Your task to perform on an android device: Toggle the flashlight Image 0: 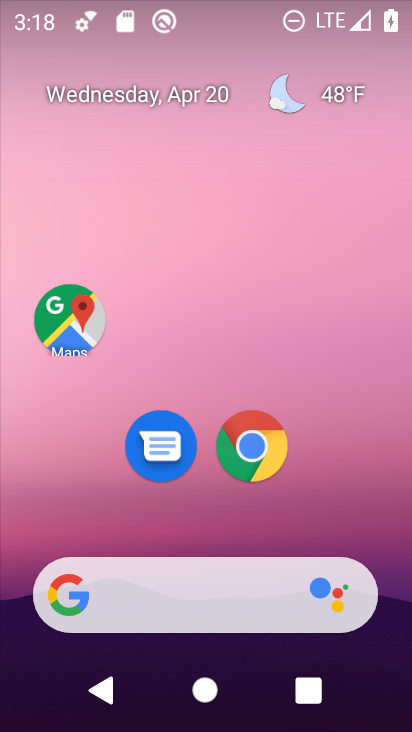
Step 0: drag from (303, 494) to (293, 11)
Your task to perform on an android device: Toggle the flashlight Image 1: 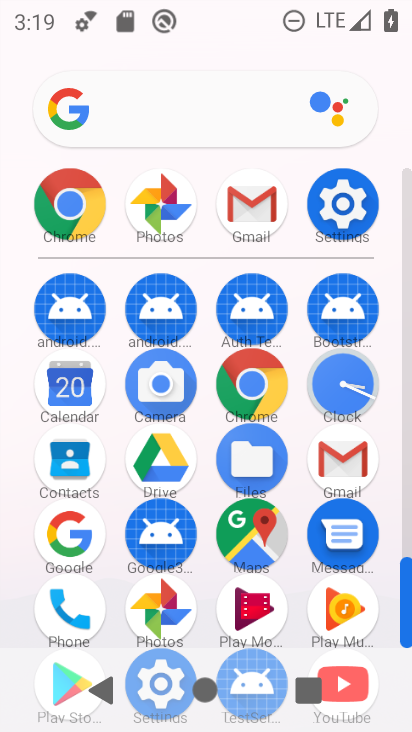
Step 1: click (346, 204)
Your task to perform on an android device: Toggle the flashlight Image 2: 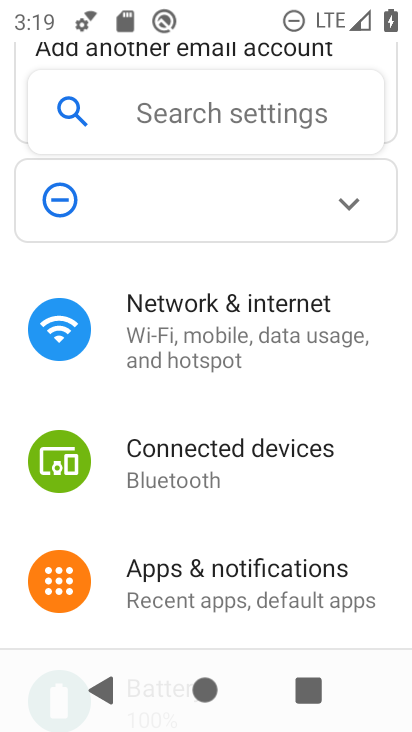
Step 2: drag from (224, 538) to (260, 394)
Your task to perform on an android device: Toggle the flashlight Image 3: 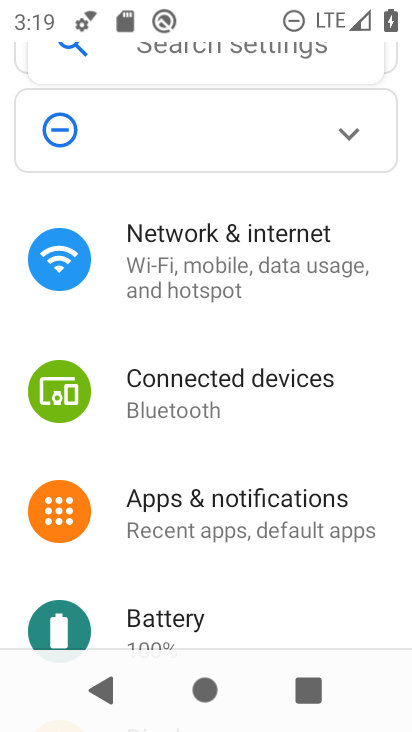
Step 3: drag from (278, 599) to (357, 409)
Your task to perform on an android device: Toggle the flashlight Image 4: 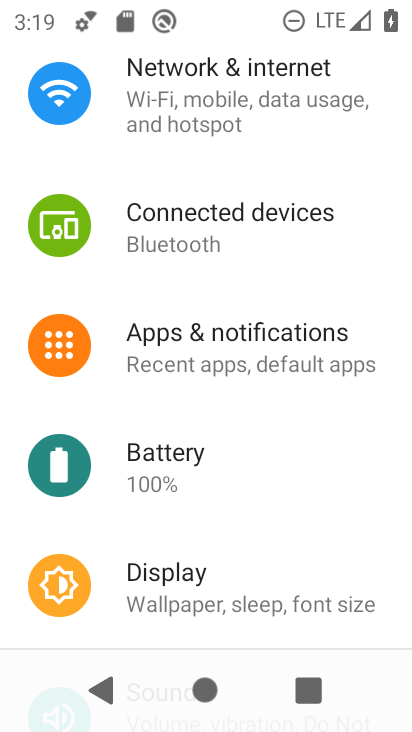
Step 4: drag from (268, 526) to (319, 344)
Your task to perform on an android device: Toggle the flashlight Image 5: 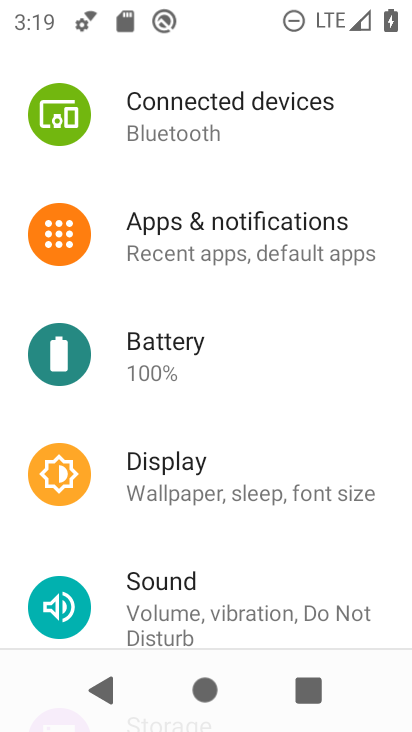
Step 5: drag from (250, 436) to (298, 315)
Your task to perform on an android device: Toggle the flashlight Image 6: 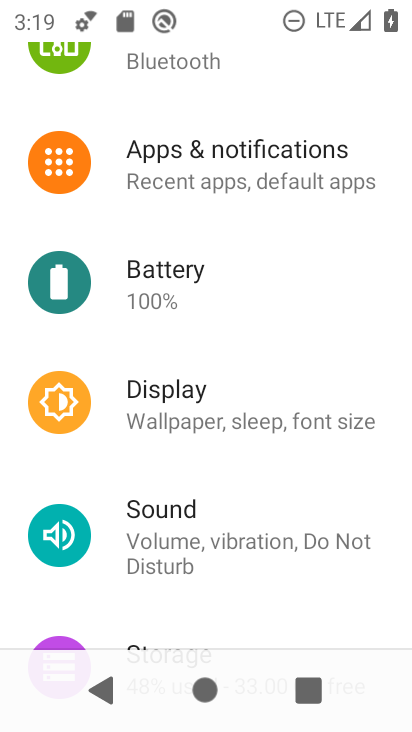
Step 6: drag from (249, 474) to (312, 345)
Your task to perform on an android device: Toggle the flashlight Image 7: 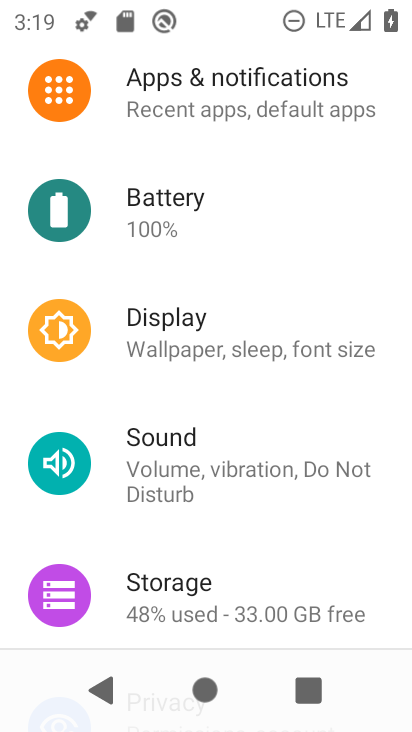
Step 7: drag from (235, 546) to (302, 386)
Your task to perform on an android device: Toggle the flashlight Image 8: 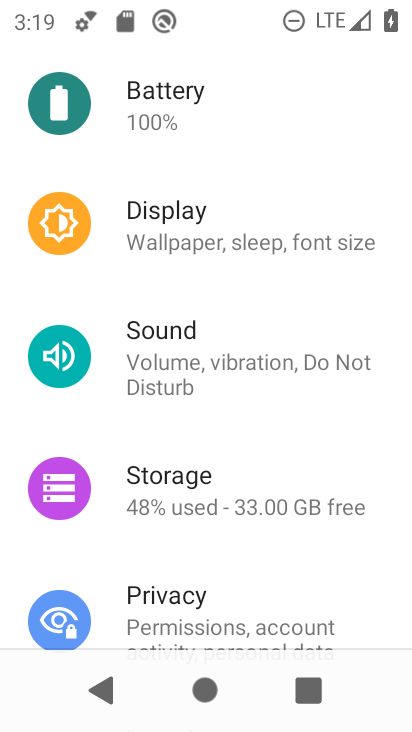
Step 8: drag from (208, 549) to (277, 399)
Your task to perform on an android device: Toggle the flashlight Image 9: 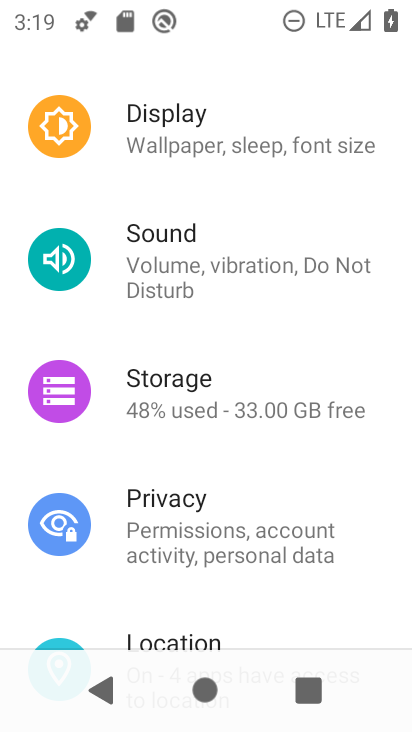
Step 9: drag from (223, 464) to (308, 334)
Your task to perform on an android device: Toggle the flashlight Image 10: 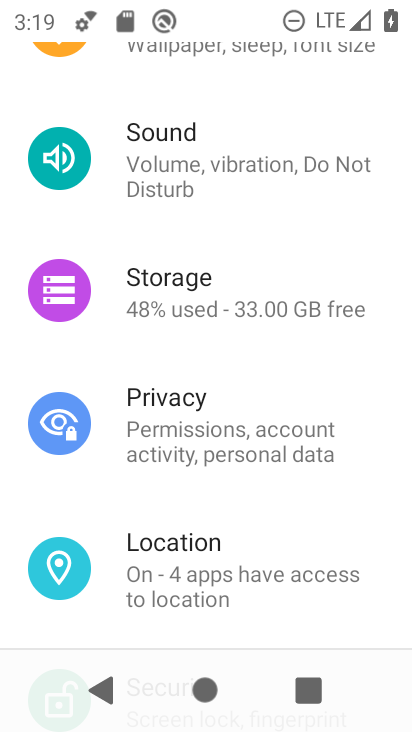
Step 10: drag from (231, 504) to (311, 378)
Your task to perform on an android device: Toggle the flashlight Image 11: 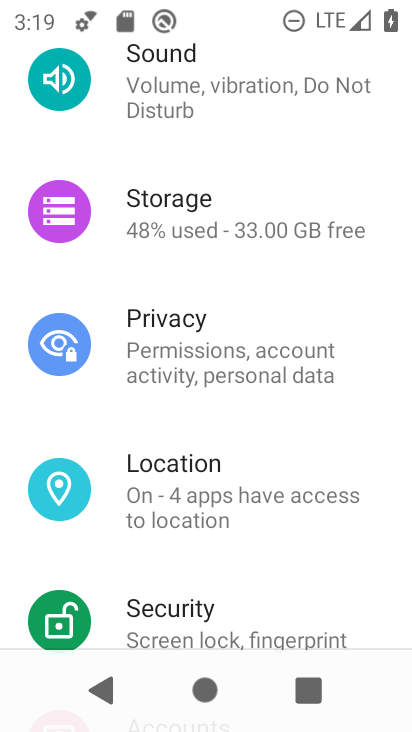
Step 11: drag from (214, 554) to (308, 410)
Your task to perform on an android device: Toggle the flashlight Image 12: 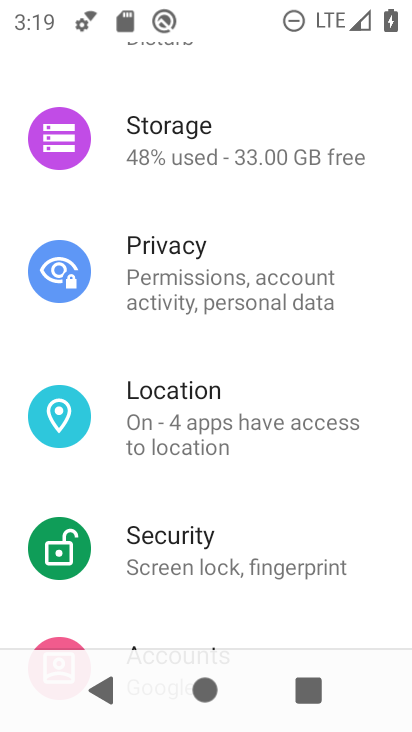
Step 12: drag from (230, 499) to (320, 367)
Your task to perform on an android device: Toggle the flashlight Image 13: 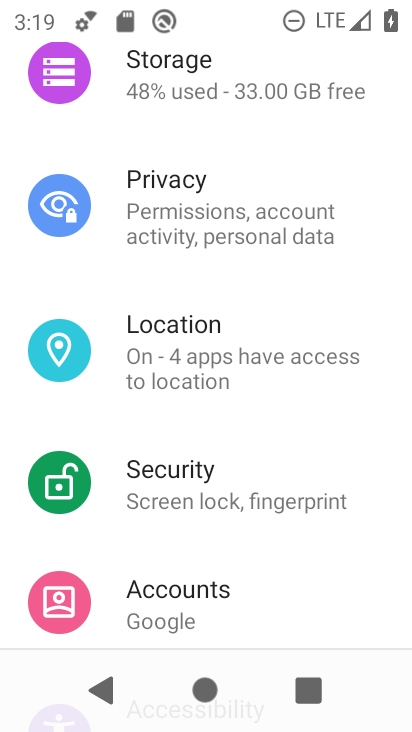
Step 13: drag from (189, 528) to (283, 406)
Your task to perform on an android device: Toggle the flashlight Image 14: 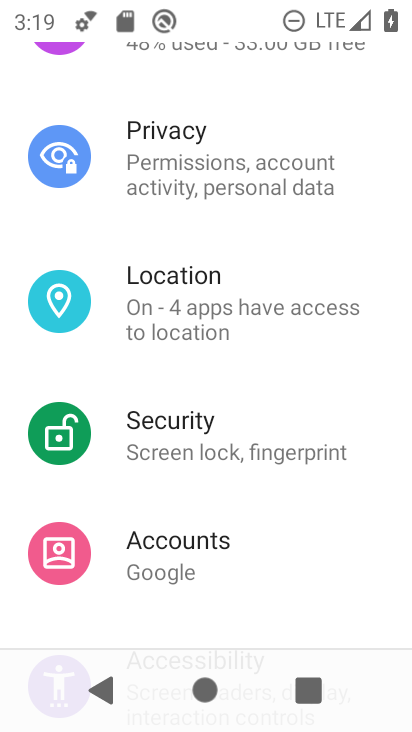
Step 14: drag from (177, 618) to (278, 412)
Your task to perform on an android device: Toggle the flashlight Image 15: 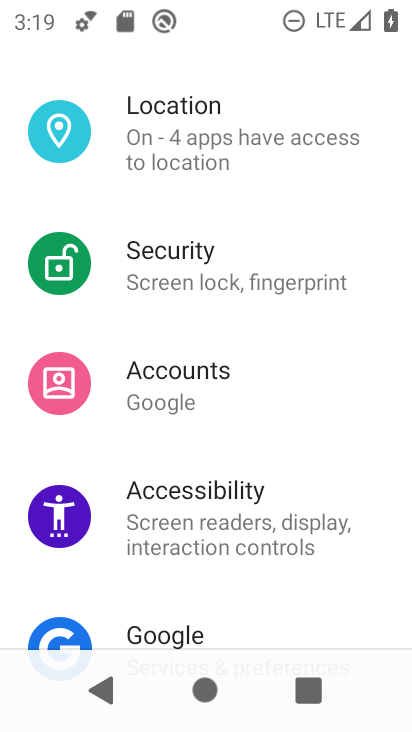
Step 15: click (225, 501)
Your task to perform on an android device: Toggle the flashlight Image 16: 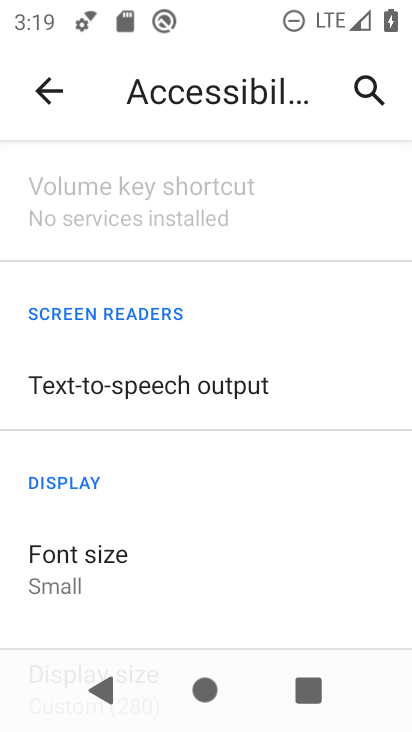
Step 16: drag from (146, 554) to (254, 430)
Your task to perform on an android device: Toggle the flashlight Image 17: 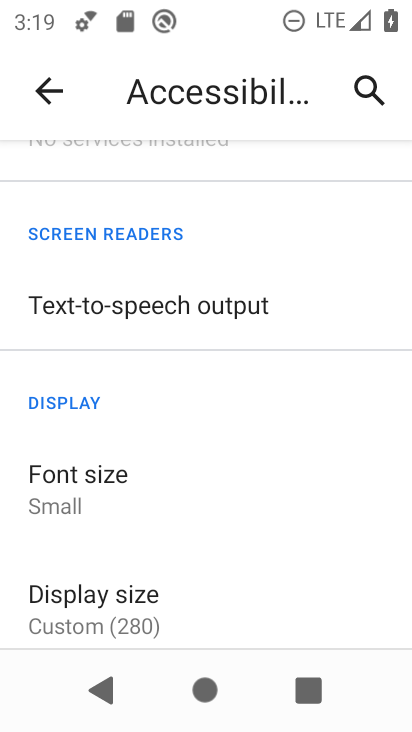
Step 17: click (265, 424)
Your task to perform on an android device: Toggle the flashlight Image 18: 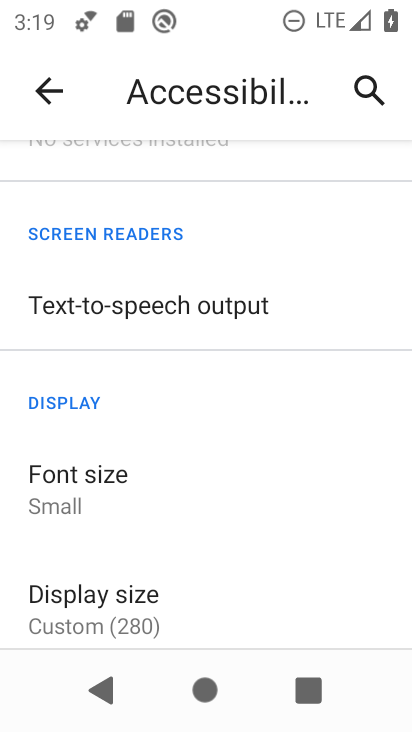
Step 18: drag from (197, 590) to (269, 409)
Your task to perform on an android device: Toggle the flashlight Image 19: 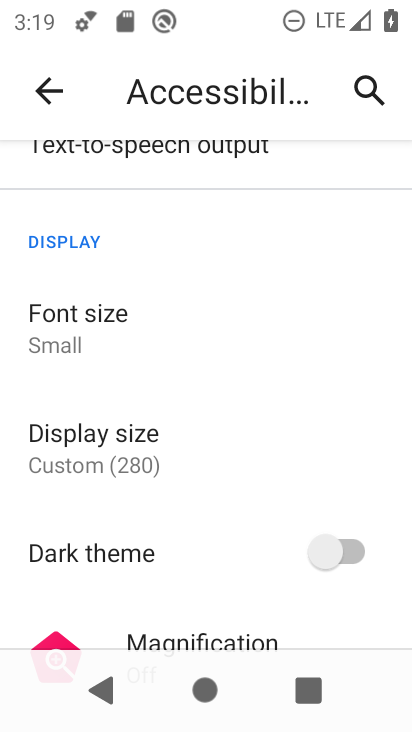
Step 19: drag from (210, 597) to (273, 447)
Your task to perform on an android device: Toggle the flashlight Image 20: 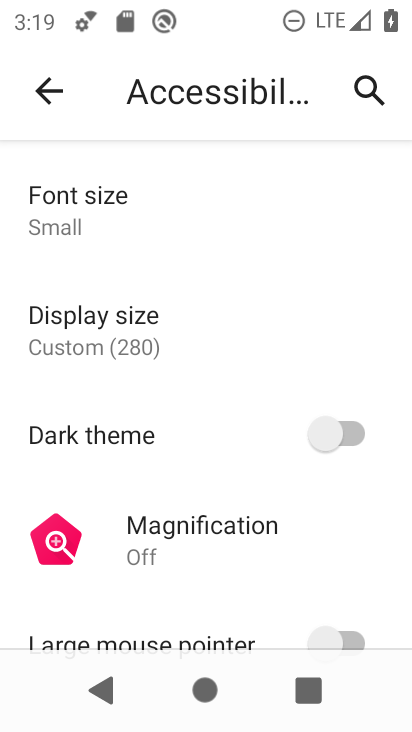
Step 20: drag from (227, 553) to (273, 412)
Your task to perform on an android device: Toggle the flashlight Image 21: 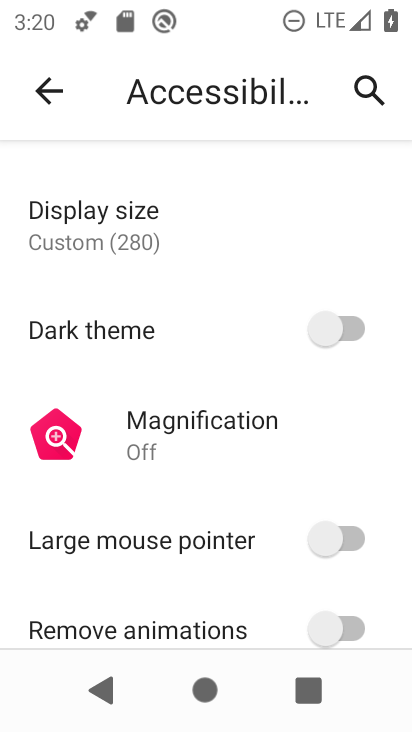
Step 21: drag from (226, 509) to (277, 416)
Your task to perform on an android device: Toggle the flashlight Image 22: 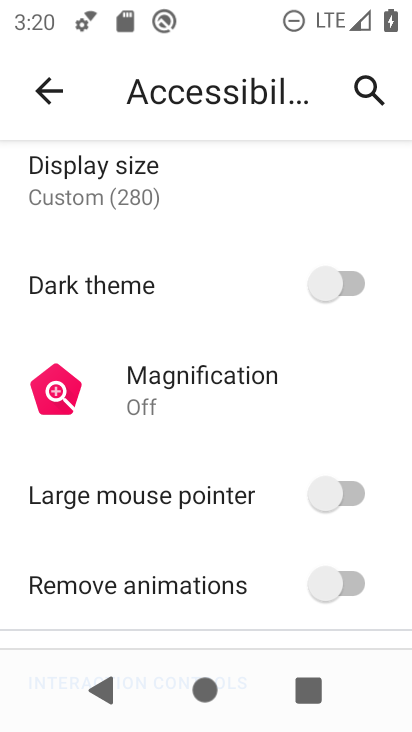
Step 22: drag from (186, 535) to (265, 420)
Your task to perform on an android device: Toggle the flashlight Image 23: 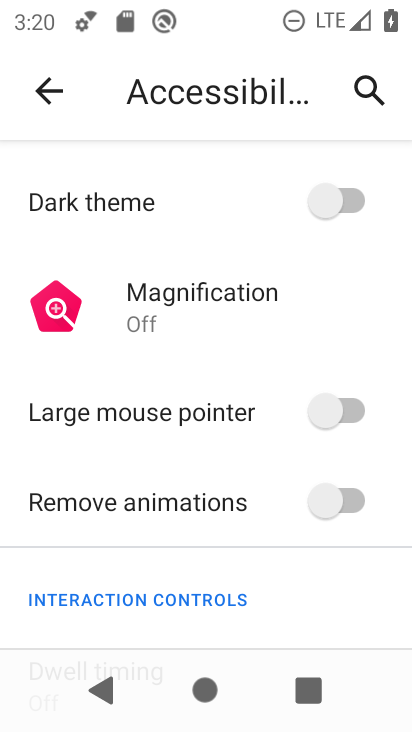
Step 23: drag from (108, 576) to (215, 369)
Your task to perform on an android device: Toggle the flashlight Image 24: 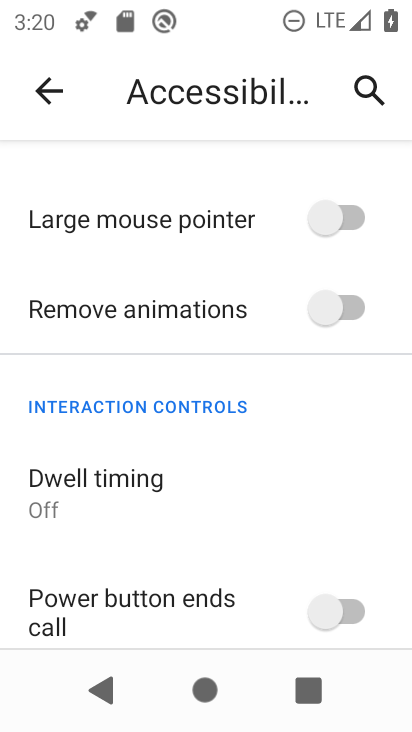
Step 24: drag from (191, 525) to (261, 325)
Your task to perform on an android device: Toggle the flashlight Image 25: 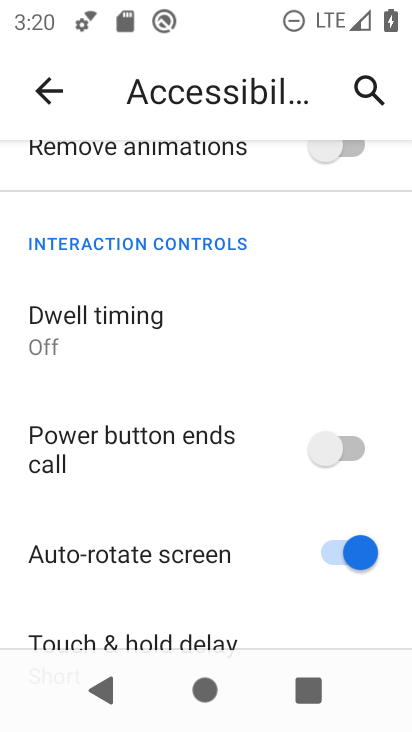
Step 25: drag from (193, 508) to (236, 323)
Your task to perform on an android device: Toggle the flashlight Image 26: 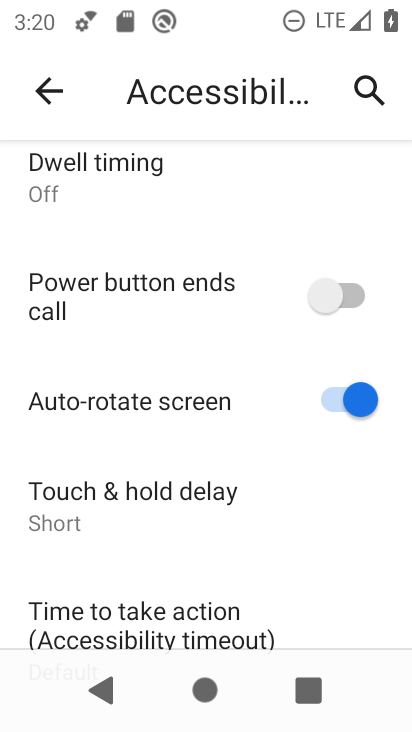
Step 26: drag from (174, 554) to (226, 338)
Your task to perform on an android device: Toggle the flashlight Image 27: 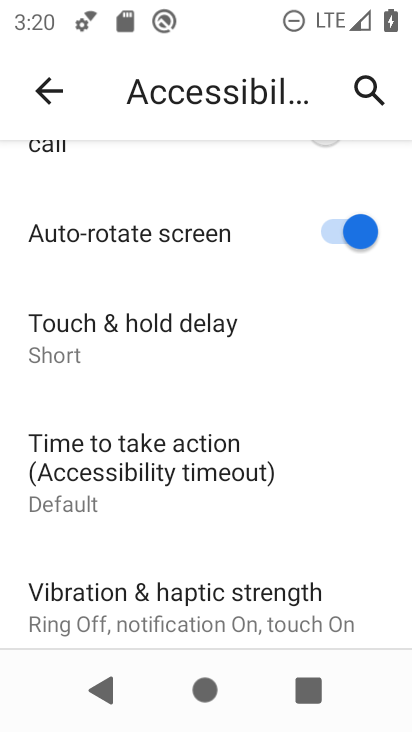
Step 27: drag from (195, 538) to (240, 363)
Your task to perform on an android device: Toggle the flashlight Image 28: 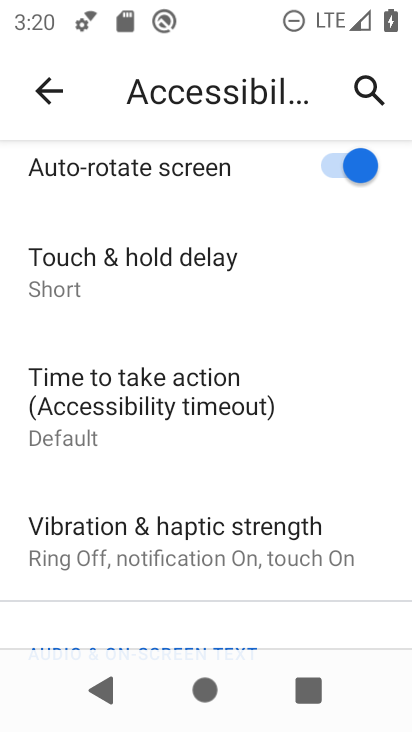
Step 28: press back button
Your task to perform on an android device: Toggle the flashlight Image 29: 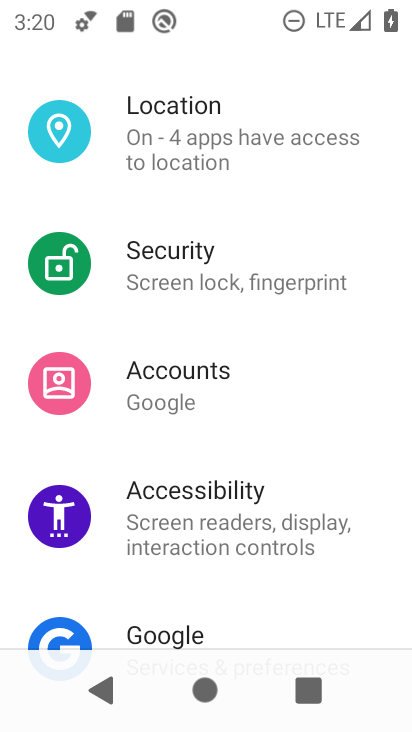
Step 29: drag from (304, 346) to (338, 472)
Your task to perform on an android device: Toggle the flashlight Image 30: 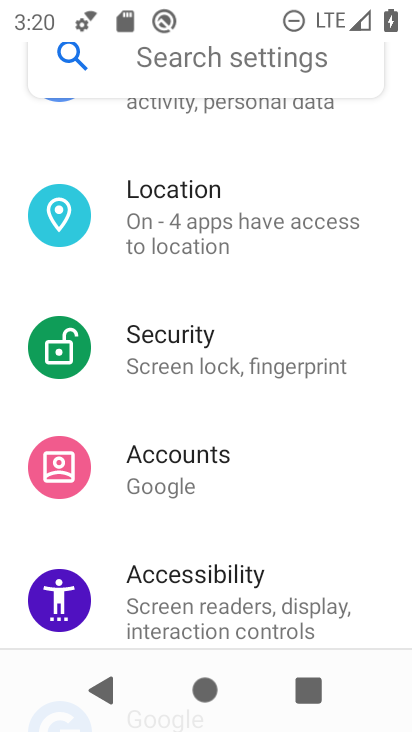
Step 30: drag from (320, 275) to (330, 409)
Your task to perform on an android device: Toggle the flashlight Image 31: 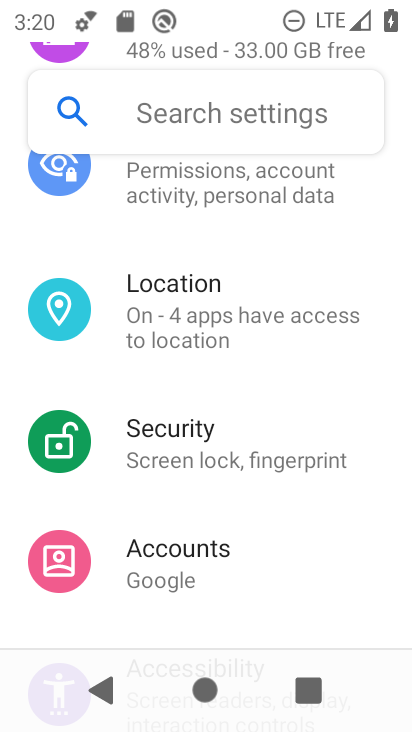
Step 31: drag from (321, 247) to (307, 379)
Your task to perform on an android device: Toggle the flashlight Image 32: 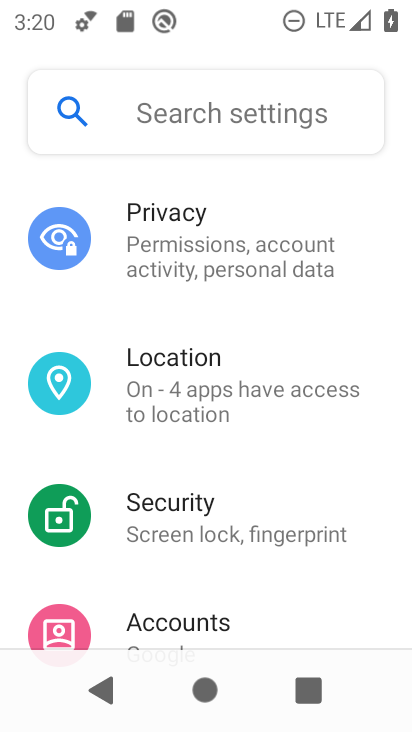
Step 32: drag from (292, 191) to (281, 399)
Your task to perform on an android device: Toggle the flashlight Image 33: 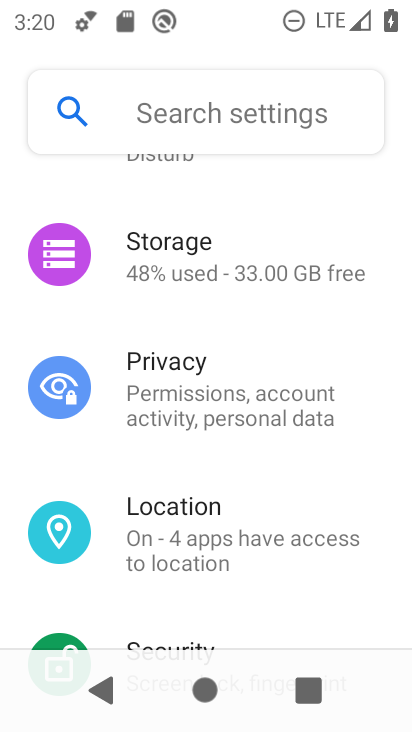
Step 33: drag from (283, 237) to (286, 369)
Your task to perform on an android device: Toggle the flashlight Image 34: 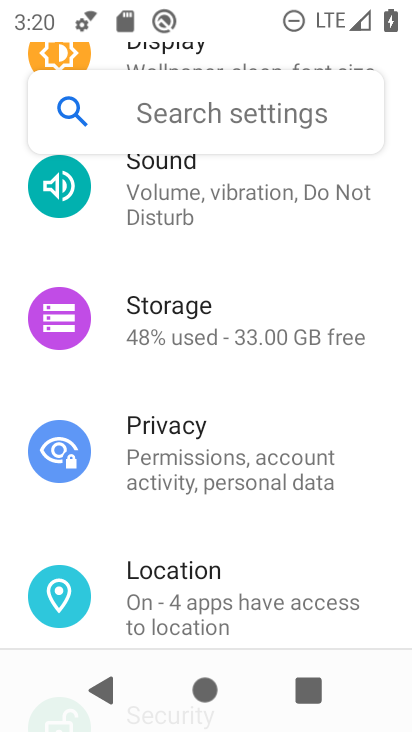
Step 34: drag from (296, 220) to (296, 336)
Your task to perform on an android device: Toggle the flashlight Image 35: 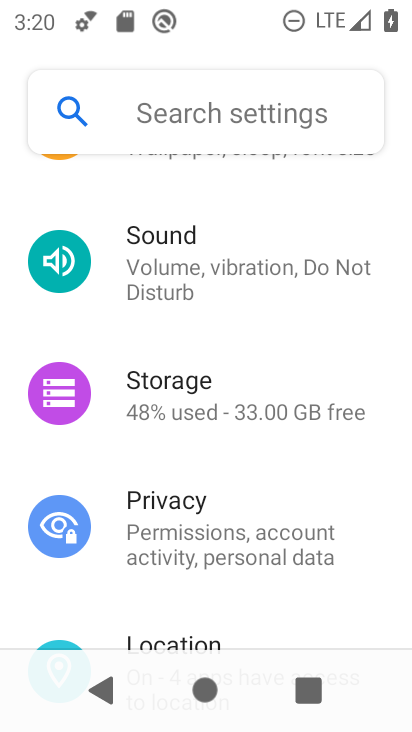
Step 35: drag from (287, 229) to (303, 423)
Your task to perform on an android device: Toggle the flashlight Image 36: 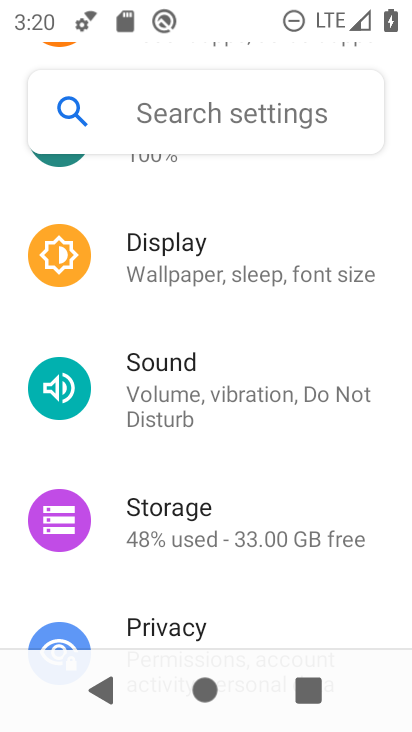
Step 36: click (280, 268)
Your task to perform on an android device: Toggle the flashlight Image 37: 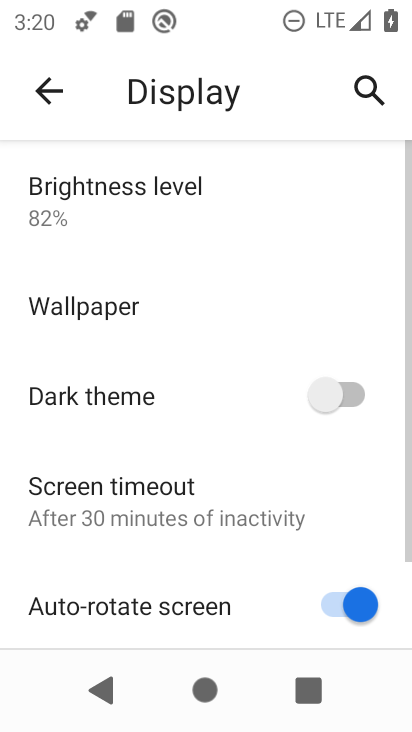
Step 37: drag from (220, 445) to (267, 286)
Your task to perform on an android device: Toggle the flashlight Image 38: 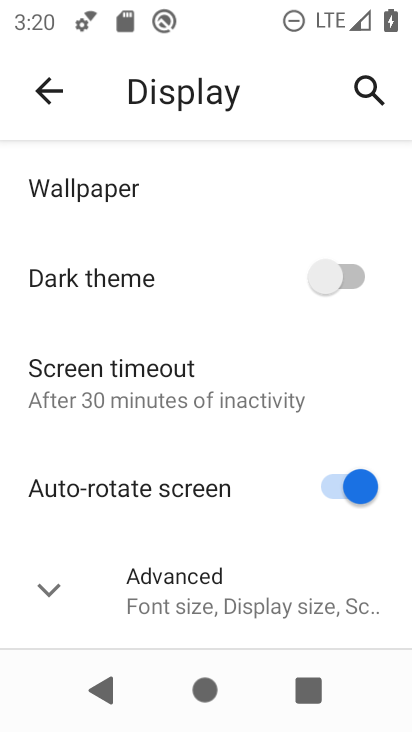
Step 38: click (214, 592)
Your task to perform on an android device: Toggle the flashlight Image 39: 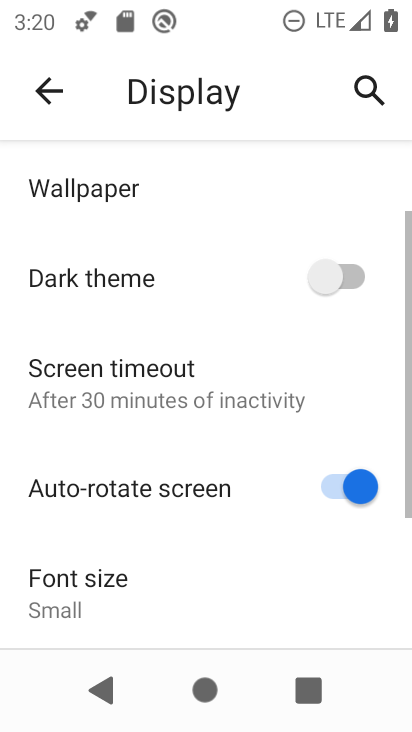
Step 39: task complete